Your task to perform on an android device: toggle javascript in the chrome app Image 0: 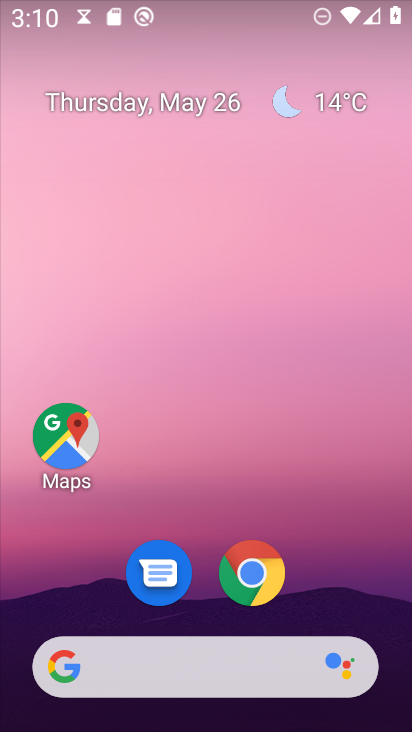
Step 0: drag from (308, 538) to (213, 6)
Your task to perform on an android device: toggle javascript in the chrome app Image 1: 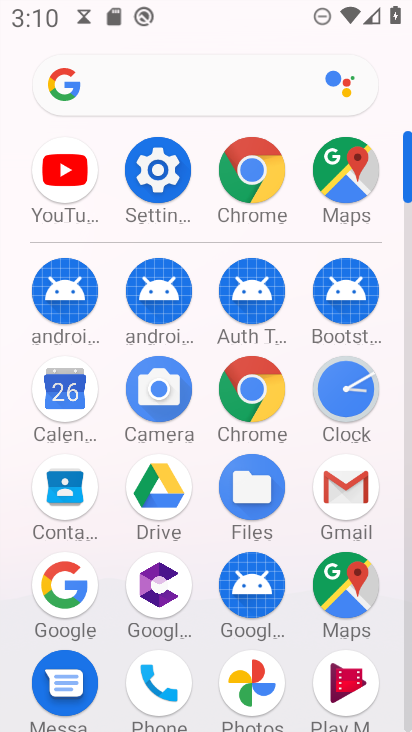
Step 1: drag from (15, 567) to (3, 254)
Your task to perform on an android device: toggle javascript in the chrome app Image 2: 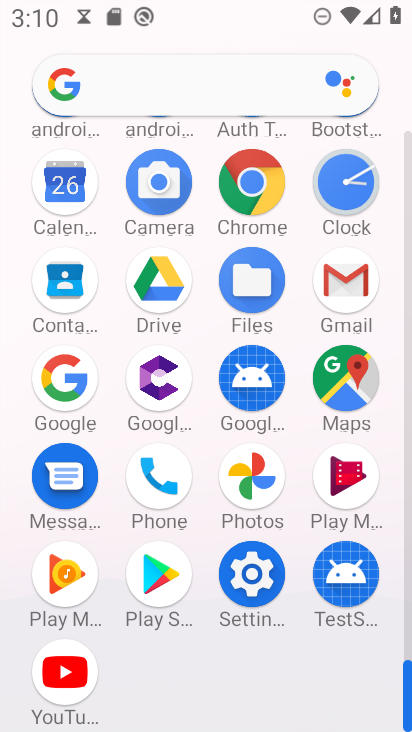
Step 2: click (249, 176)
Your task to perform on an android device: toggle javascript in the chrome app Image 3: 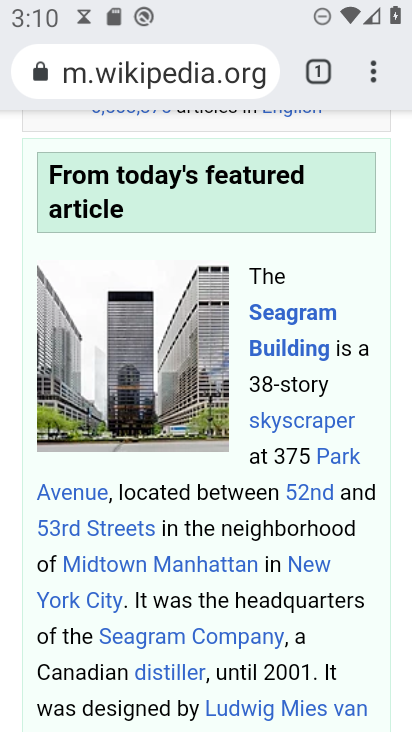
Step 3: drag from (369, 70) to (161, 554)
Your task to perform on an android device: toggle javascript in the chrome app Image 4: 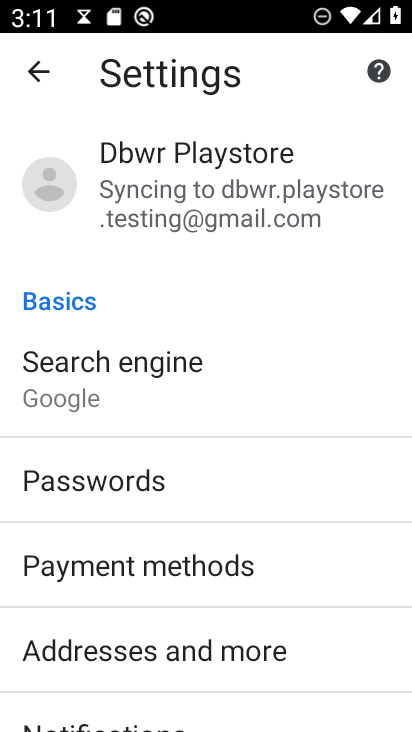
Step 4: drag from (269, 580) to (262, 302)
Your task to perform on an android device: toggle javascript in the chrome app Image 5: 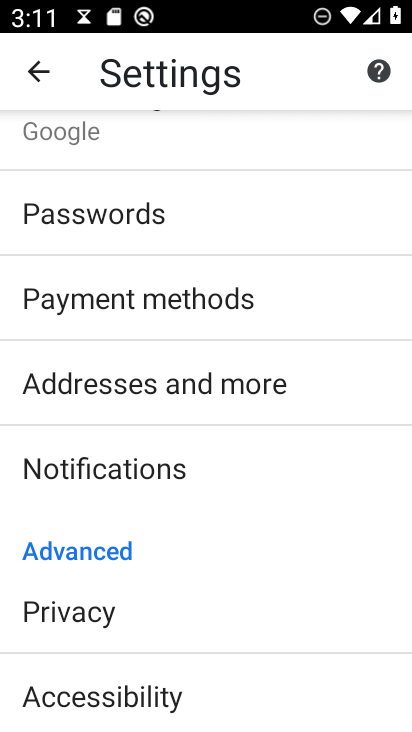
Step 5: drag from (238, 614) to (250, 228)
Your task to perform on an android device: toggle javascript in the chrome app Image 6: 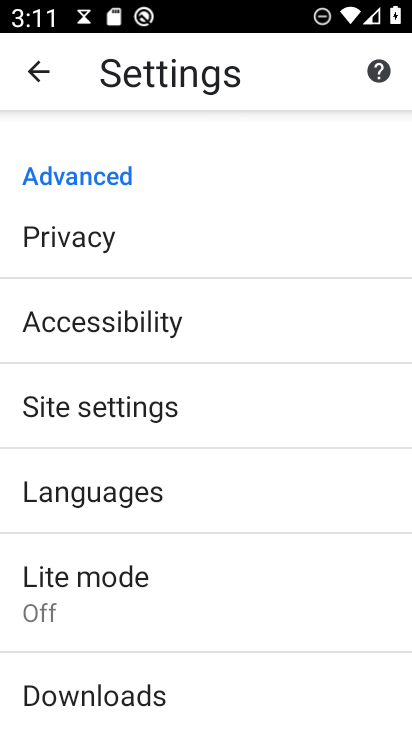
Step 6: drag from (209, 616) to (233, 263)
Your task to perform on an android device: toggle javascript in the chrome app Image 7: 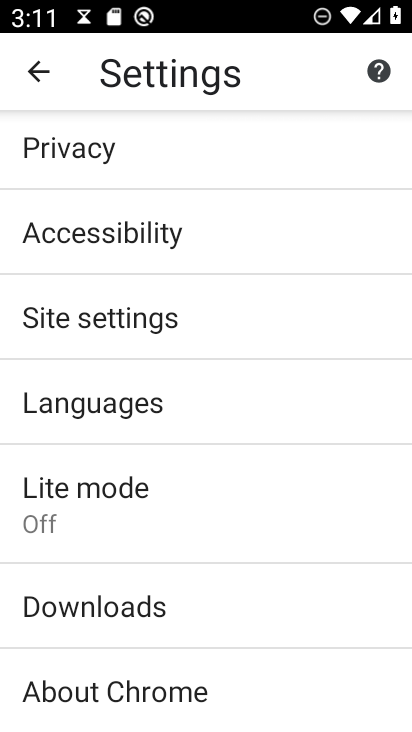
Step 7: click (147, 310)
Your task to perform on an android device: toggle javascript in the chrome app Image 8: 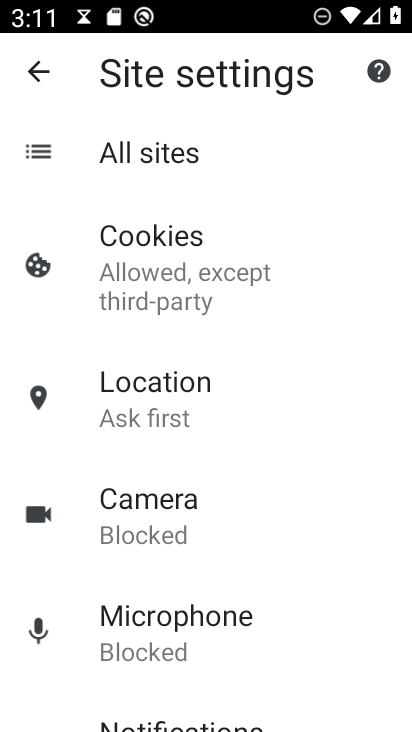
Step 8: drag from (237, 556) to (289, 257)
Your task to perform on an android device: toggle javascript in the chrome app Image 9: 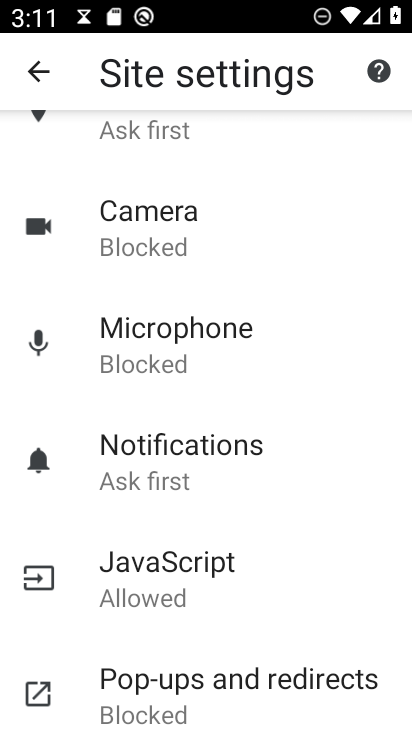
Step 9: drag from (285, 600) to (290, 300)
Your task to perform on an android device: toggle javascript in the chrome app Image 10: 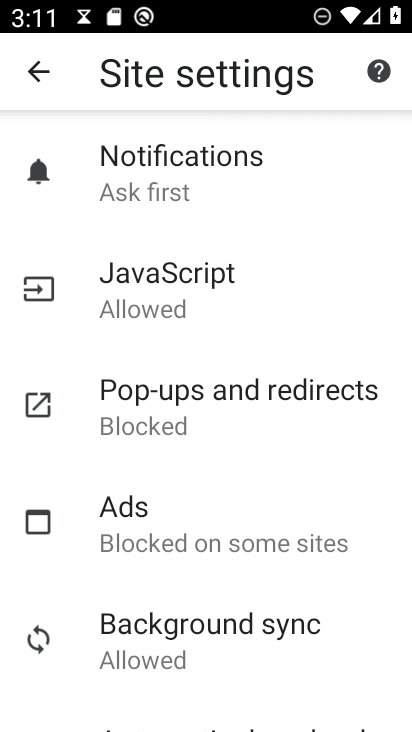
Step 10: click (220, 288)
Your task to perform on an android device: toggle javascript in the chrome app Image 11: 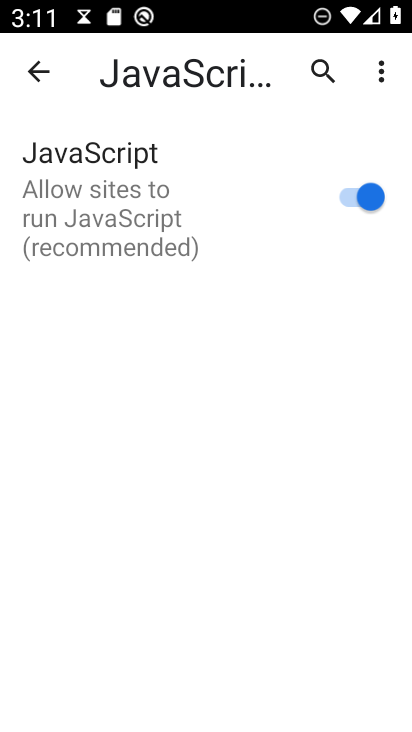
Step 11: click (327, 181)
Your task to perform on an android device: toggle javascript in the chrome app Image 12: 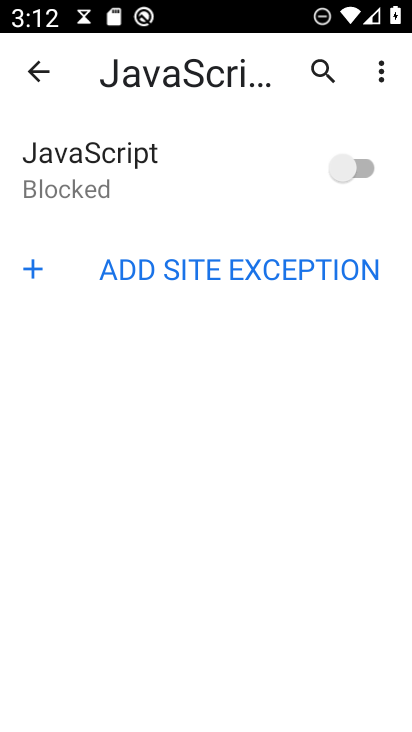
Step 12: task complete